Your task to perform on an android device: Open Google Maps and go to "Timeline" Image 0: 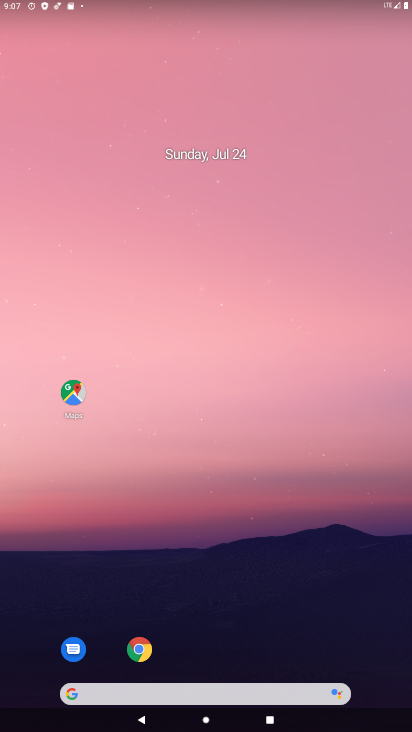
Step 0: click (62, 392)
Your task to perform on an android device: Open Google Maps and go to "Timeline" Image 1: 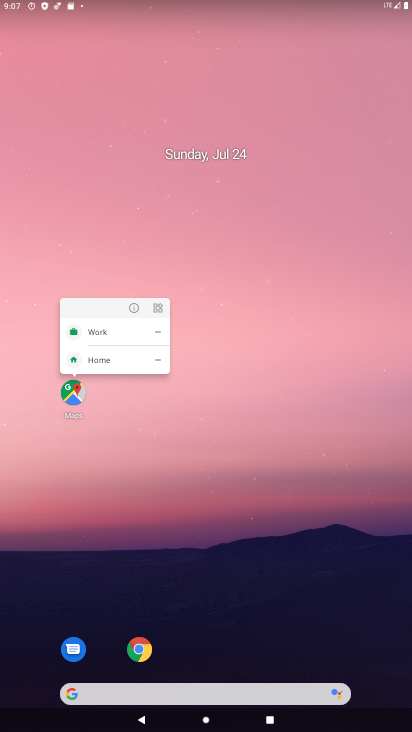
Step 1: click (73, 392)
Your task to perform on an android device: Open Google Maps and go to "Timeline" Image 2: 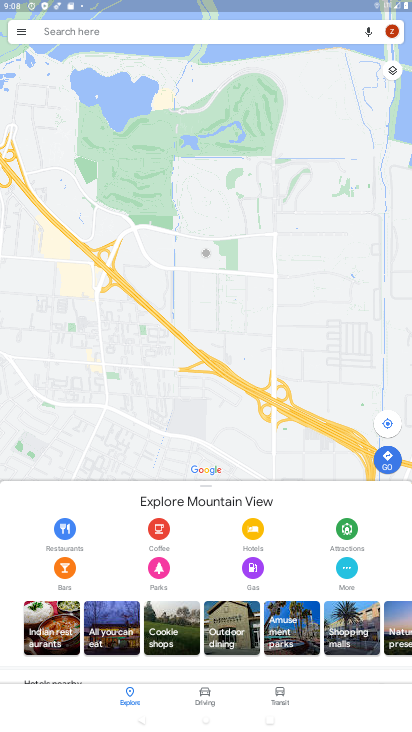
Step 2: click (22, 31)
Your task to perform on an android device: Open Google Maps and go to "Timeline" Image 3: 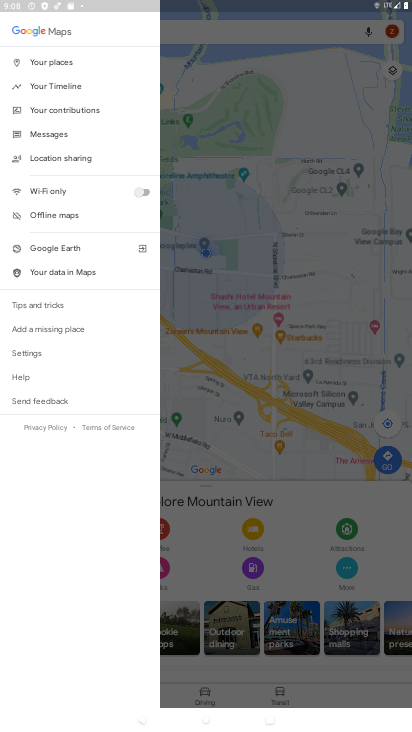
Step 3: click (73, 88)
Your task to perform on an android device: Open Google Maps and go to "Timeline" Image 4: 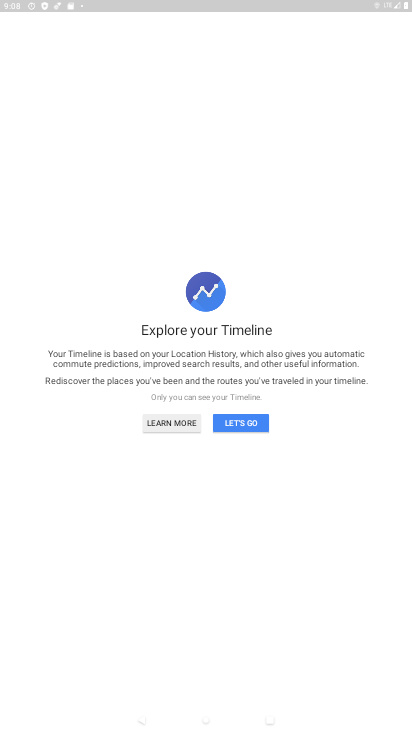
Step 4: click (235, 424)
Your task to perform on an android device: Open Google Maps and go to "Timeline" Image 5: 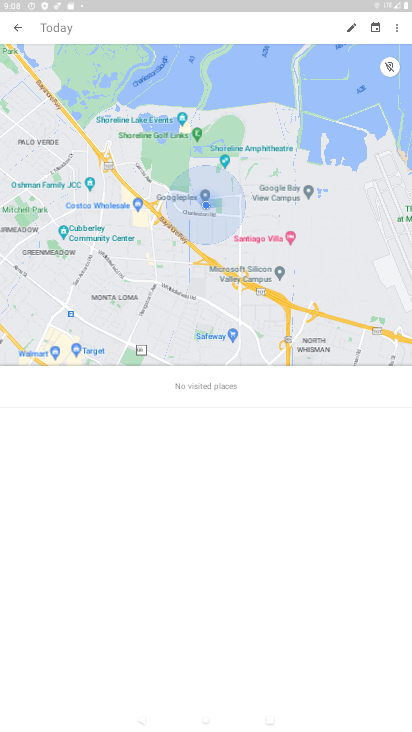
Step 5: task complete